Your task to perform on an android device: Show me recent news Image 0: 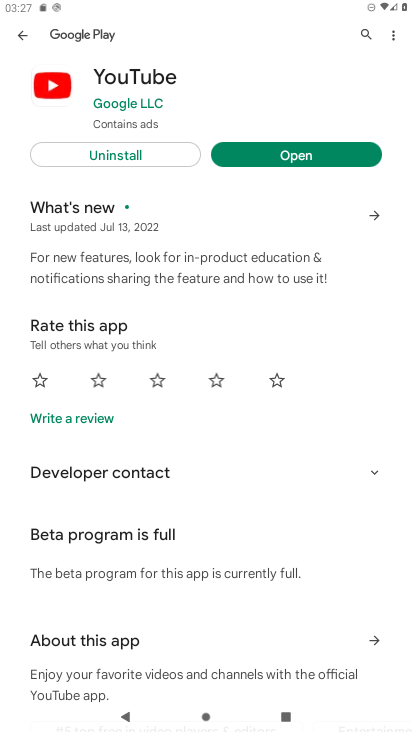
Step 0: press home button
Your task to perform on an android device: Show me recent news Image 1: 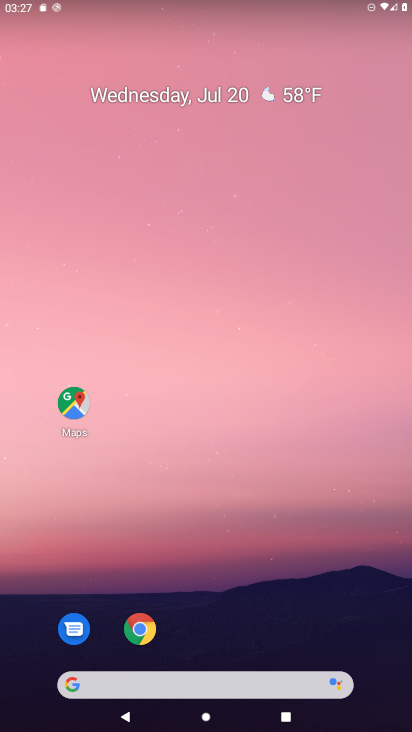
Step 1: drag from (270, 593) to (223, 152)
Your task to perform on an android device: Show me recent news Image 2: 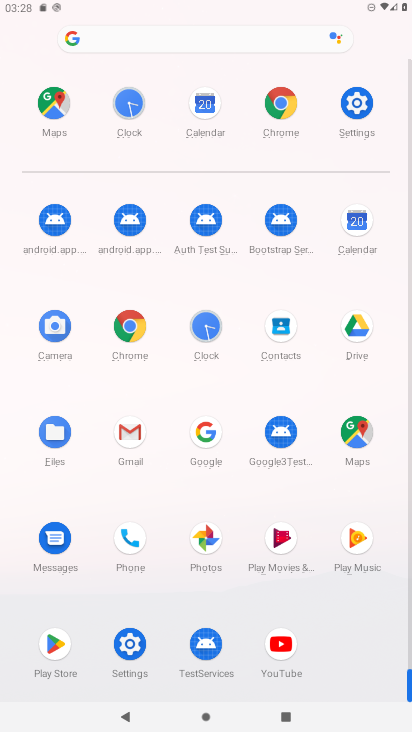
Step 2: click (117, 344)
Your task to perform on an android device: Show me recent news Image 3: 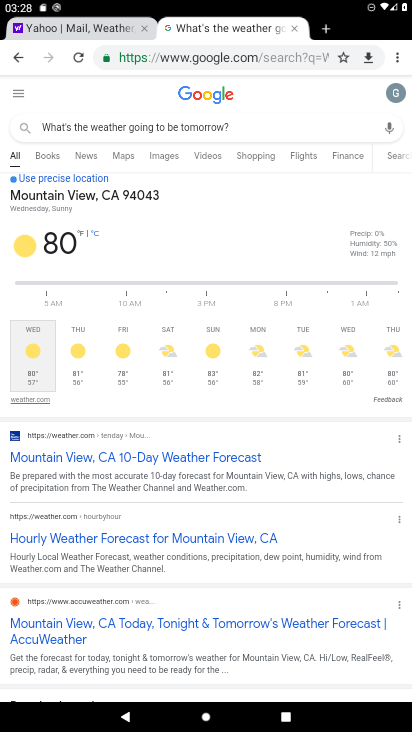
Step 3: click (202, 61)
Your task to perform on an android device: Show me recent news Image 4: 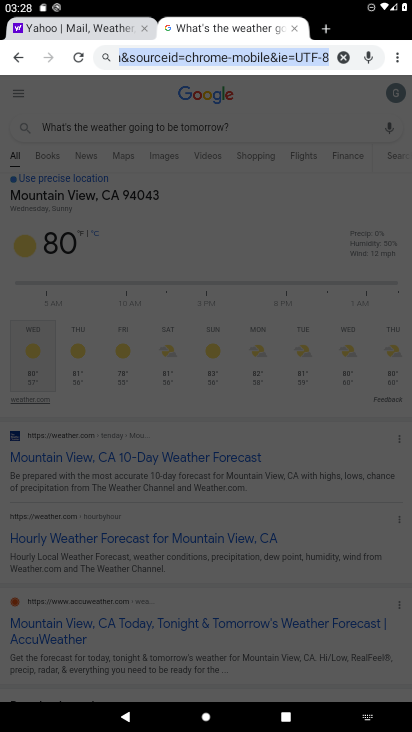
Step 4: click (348, 53)
Your task to perform on an android device: Show me recent news Image 5: 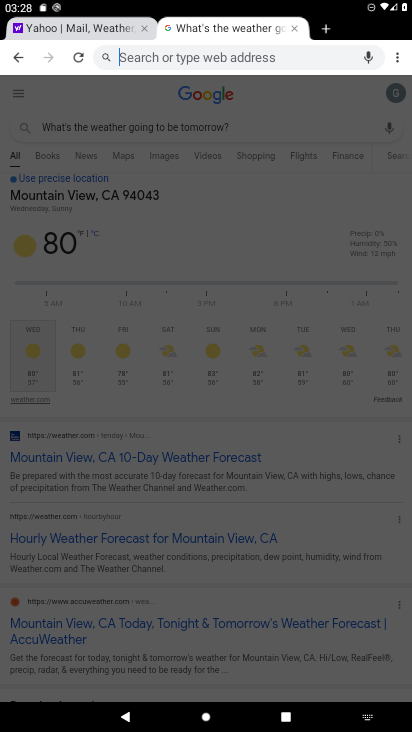
Step 5: type "Show me recent news"
Your task to perform on an android device: Show me recent news Image 6: 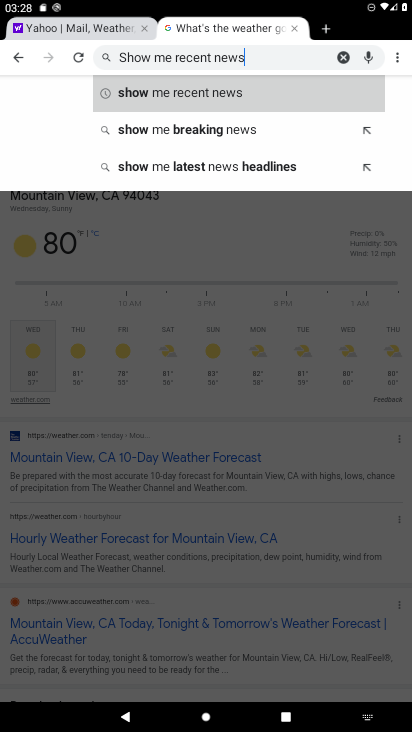
Step 6: click (147, 94)
Your task to perform on an android device: Show me recent news Image 7: 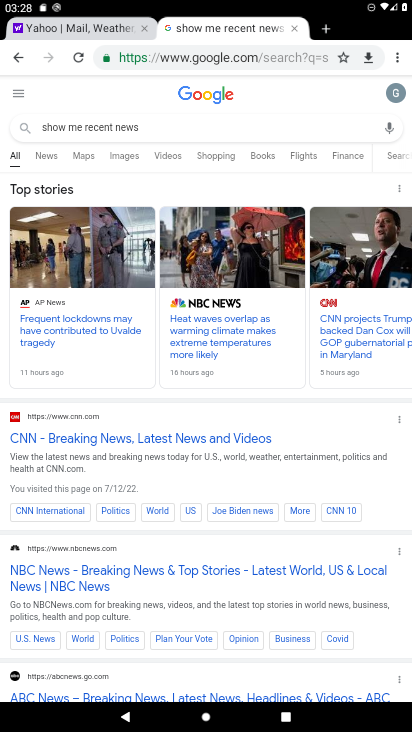
Step 7: click (49, 157)
Your task to perform on an android device: Show me recent news Image 8: 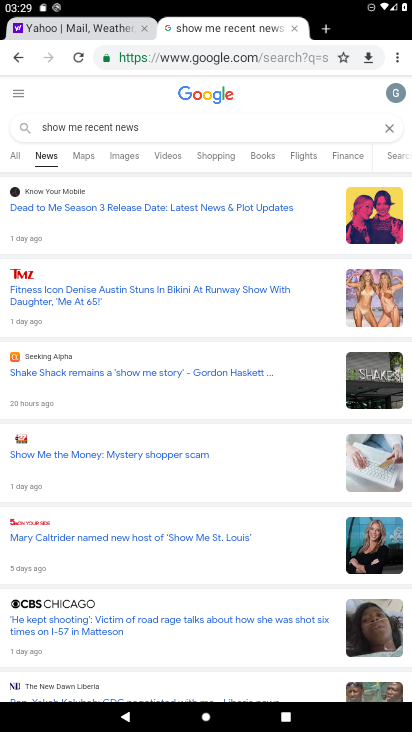
Step 8: task complete